Your task to perform on an android device: visit the assistant section in the google photos Image 0: 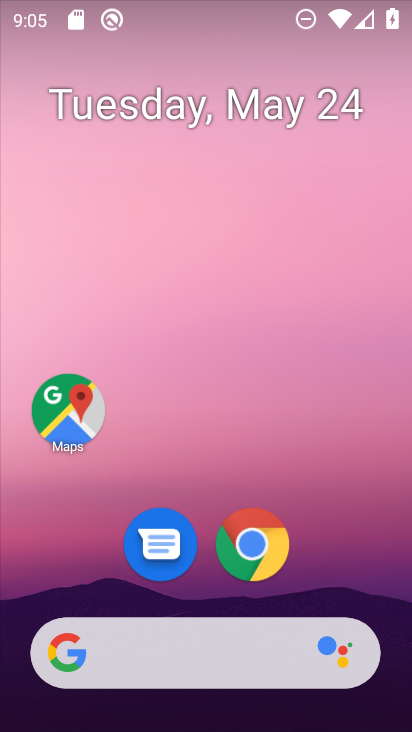
Step 0: drag from (214, 475) to (250, 80)
Your task to perform on an android device: visit the assistant section in the google photos Image 1: 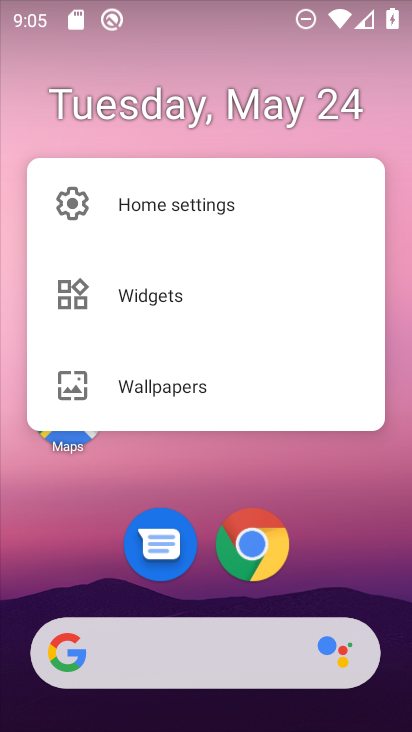
Step 1: drag from (398, 653) to (389, 377)
Your task to perform on an android device: visit the assistant section in the google photos Image 2: 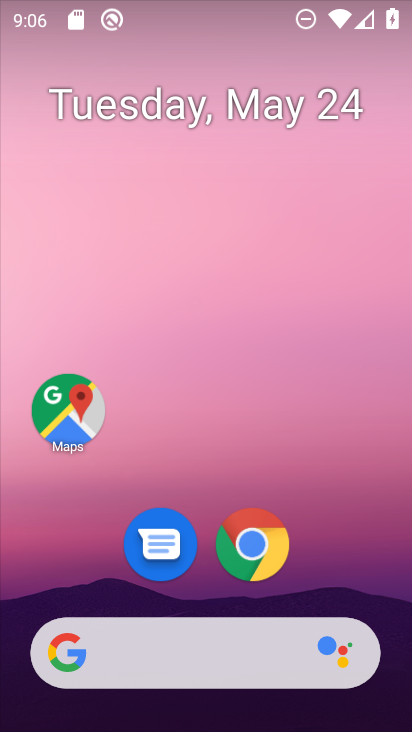
Step 2: drag from (357, 588) to (237, 112)
Your task to perform on an android device: visit the assistant section in the google photos Image 3: 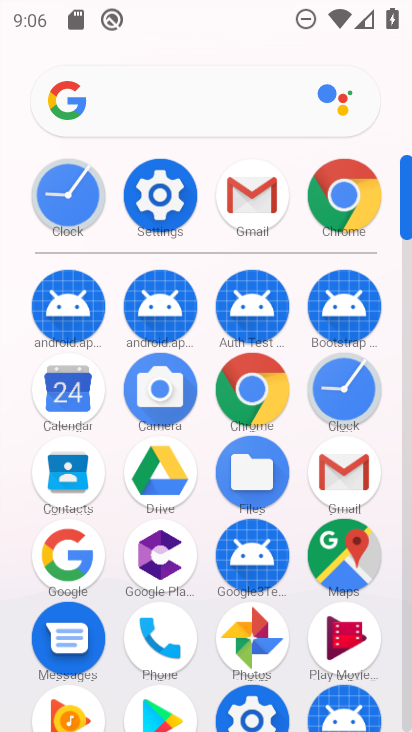
Step 3: click (263, 645)
Your task to perform on an android device: visit the assistant section in the google photos Image 4: 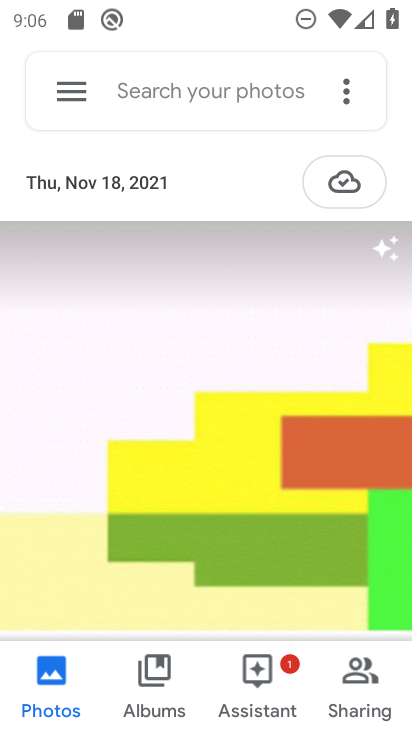
Step 4: click (258, 673)
Your task to perform on an android device: visit the assistant section in the google photos Image 5: 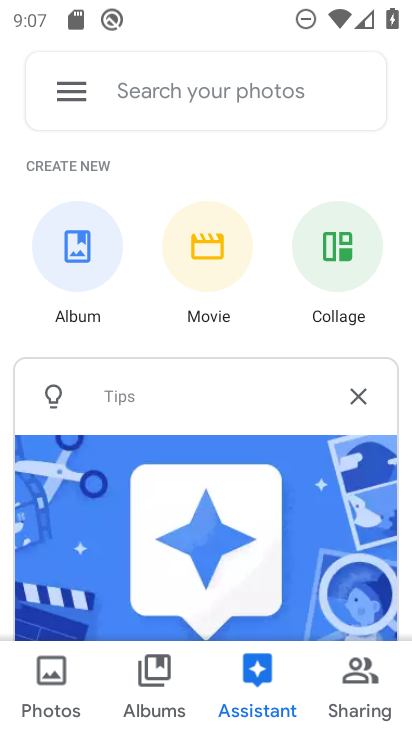
Step 5: task complete